Your task to perform on an android device: Go to calendar. Show me events next week Image 0: 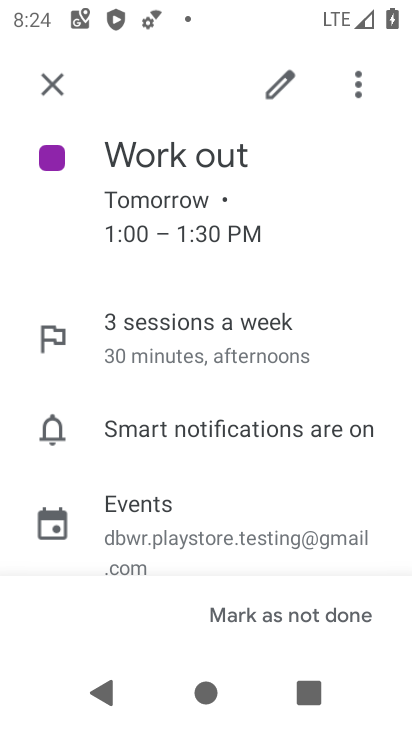
Step 0: press home button
Your task to perform on an android device: Go to calendar. Show me events next week Image 1: 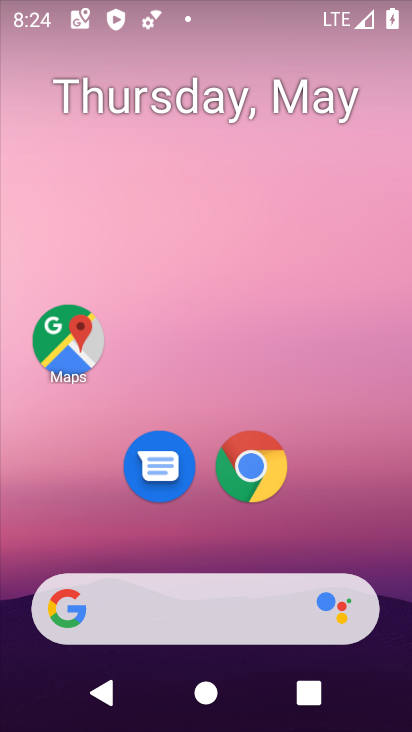
Step 1: drag from (363, 569) to (354, 0)
Your task to perform on an android device: Go to calendar. Show me events next week Image 2: 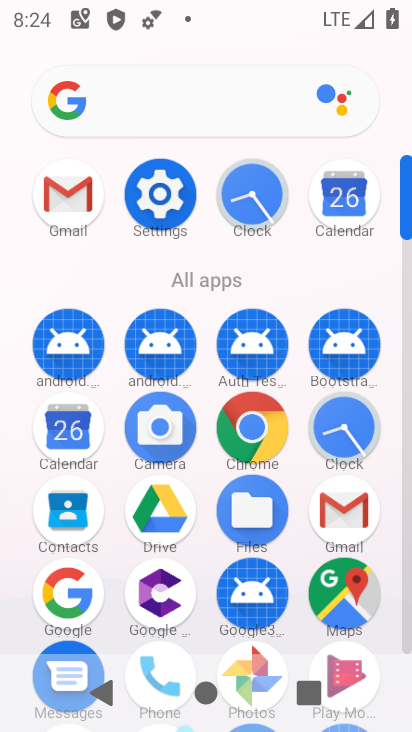
Step 2: click (339, 202)
Your task to perform on an android device: Go to calendar. Show me events next week Image 3: 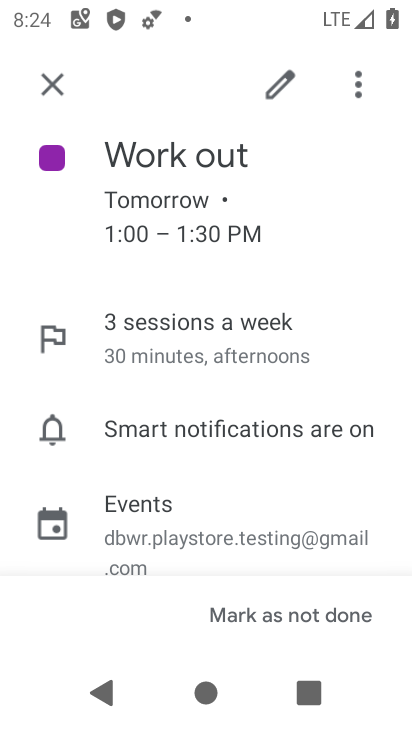
Step 3: click (45, 92)
Your task to perform on an android device: Go to calendar. Show me events next week Image 4: 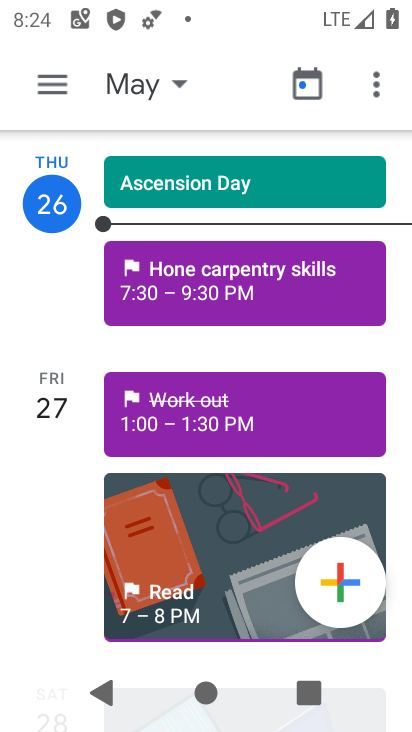
Step 4: click (55, 90)
Your task to perform on an android device: Go to calendar. Show me events next week Image 5: 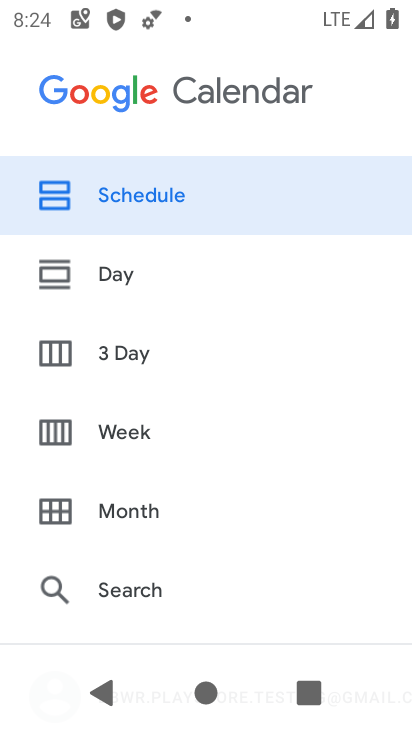
Step 5: click (115, 433)
Your task to perform on an android device: Go to calendar. Show me events next week Image 6: 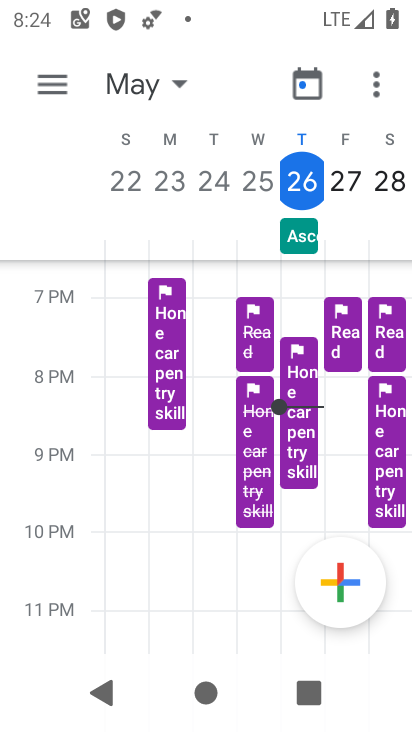
Step 6: click (45, 87)
Your task to perform on an android device: Go to calendar. Show me events next week Image 7: 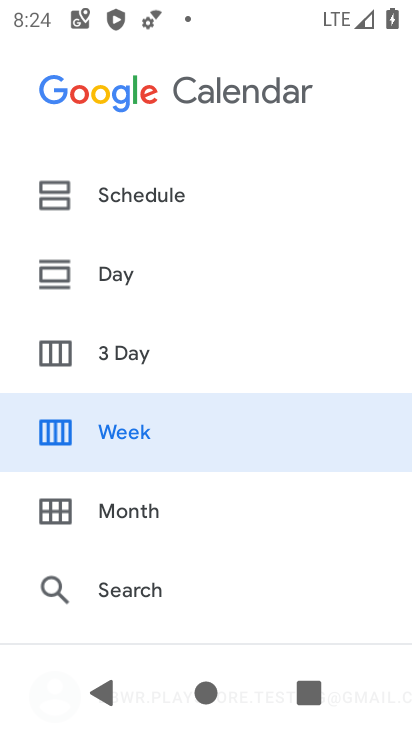
Step 7: drag from (116, 563) to (106, 87)
Your task to perform on an android device: Go to calendar. Show me events next week Image 8: 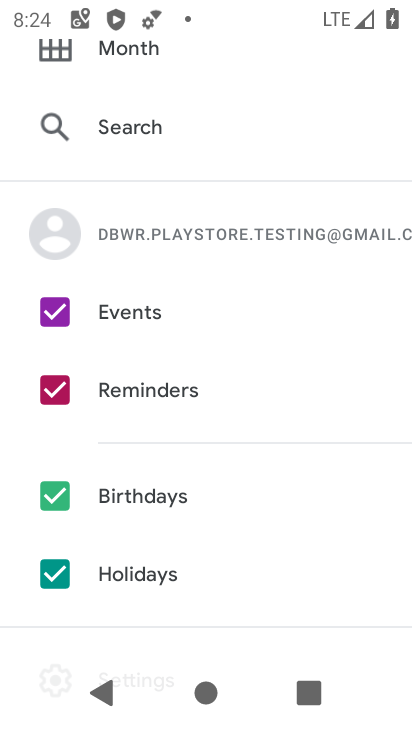
Step 8: click (61, 379)
Your task to perform on an android device: Go to calendar. Show me events next week Image 9: 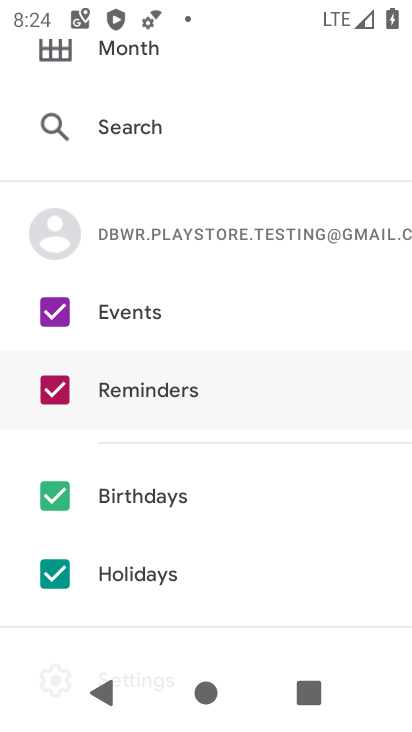
Step 9: click (69, 498)
Your task to perform on an android device: Go to calendar. Show me events next week Image 10: 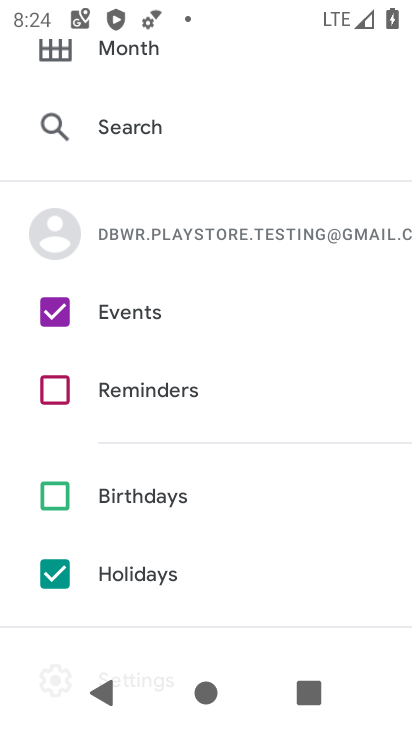
Step 10: click (56, 581)
Your task to perform on an android device: Go to calendar. Show me events next week Image 11: 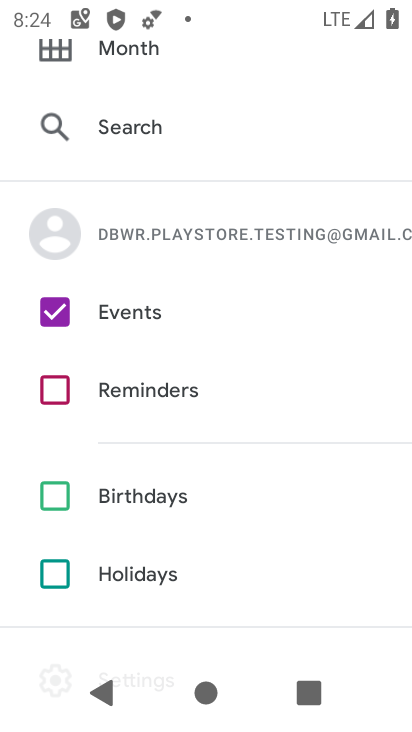
Step 11: drag from (197, 147) to (223, 432)
Your task to perform on an android device: Go to calendar. Show me events next week Image 12: 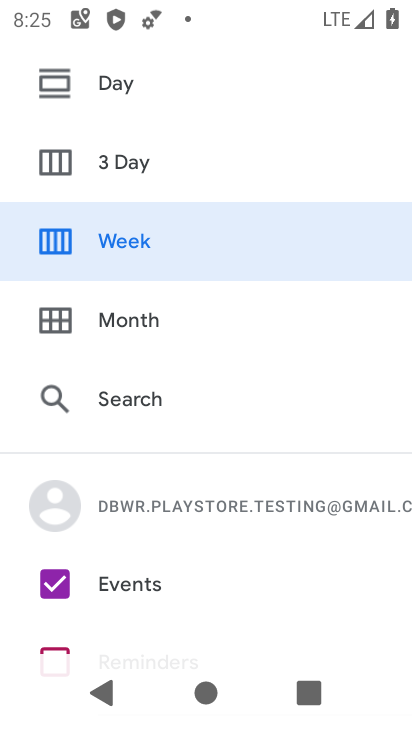
Step 12: click (107, 235)
Your task to perform on an android device: Go to calendar. Show me events next week Image 13: 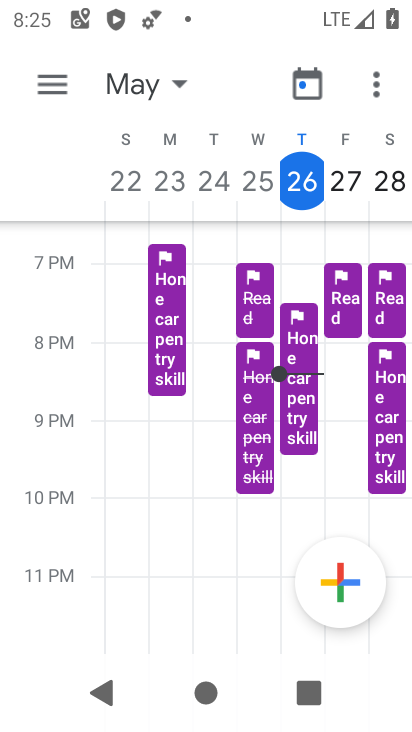
Step 13: task complete